Your task to perform on an android device: Open Google Chrome Image 0: 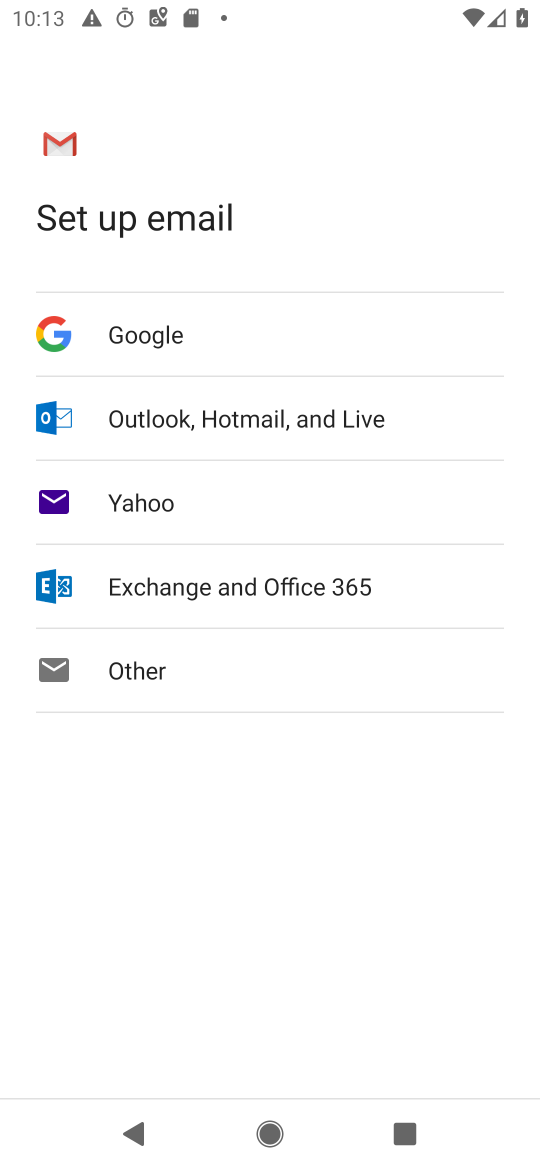
Step 0: press home button
Your task to perform on an android device: Open Google Chrome Image 1: 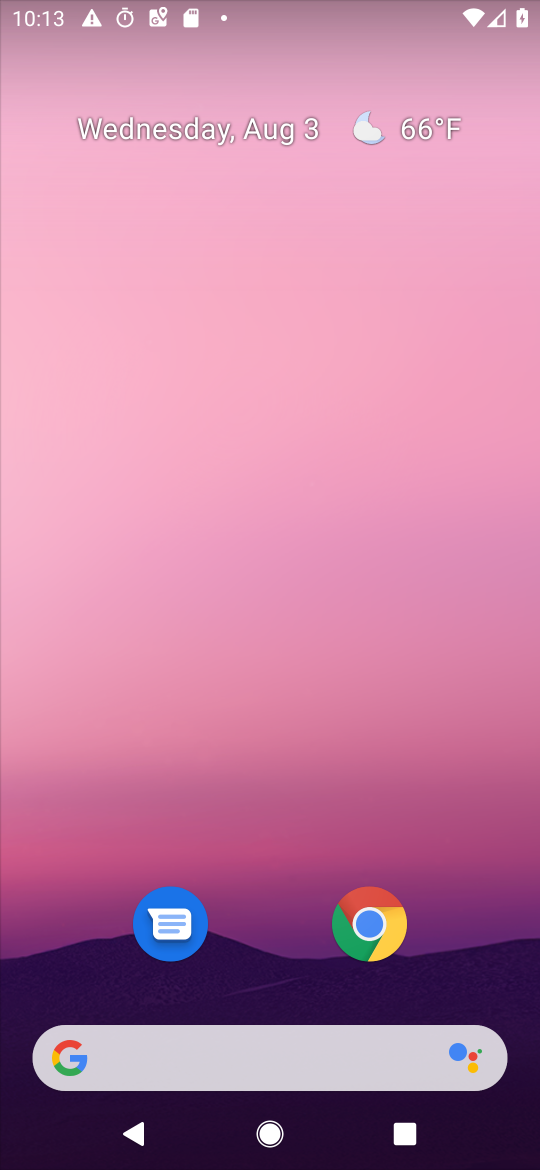
Step 1: click (367, 917)
Your task to perform on an android device: Open Google Chrome Image 2: 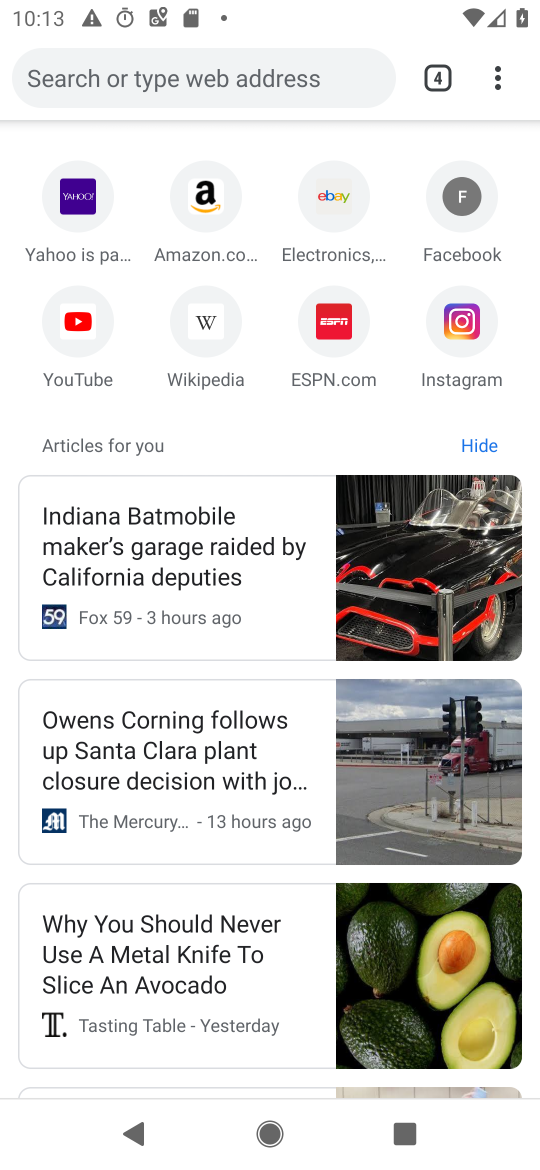
Step 2: task complete